Your task to perform on an android device: Open CNN.com Image 0: 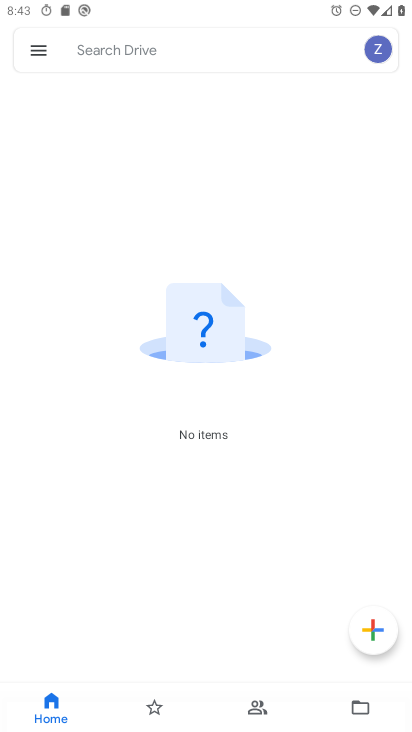
Step 0: press home button
Your task to perform on an android device: Open CNN.com Image 1: 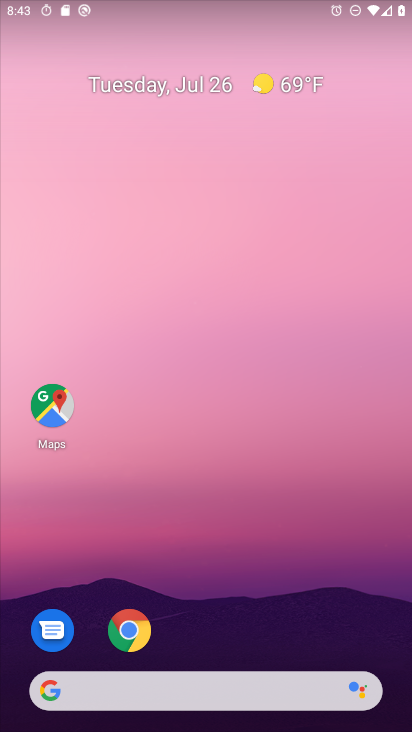
Step 1: drag from (245, 488) to (231, 169)
Your task to perform on an android device: Open CNN.com Image 2: 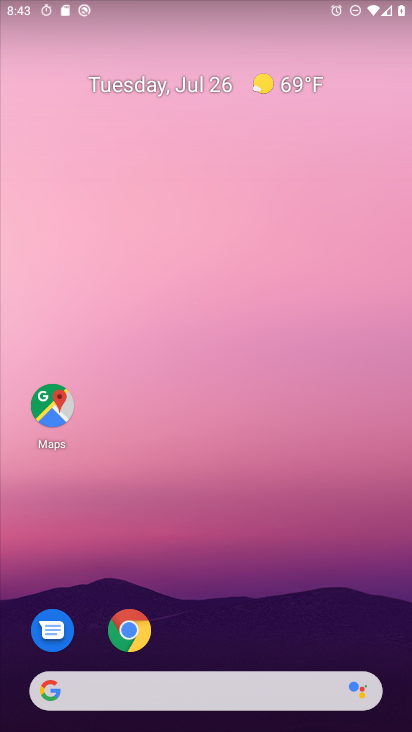
Step 2: drag from (171, 587) to (219, 167)
Your task to perform on an android device: Open CNN.com Image 3: 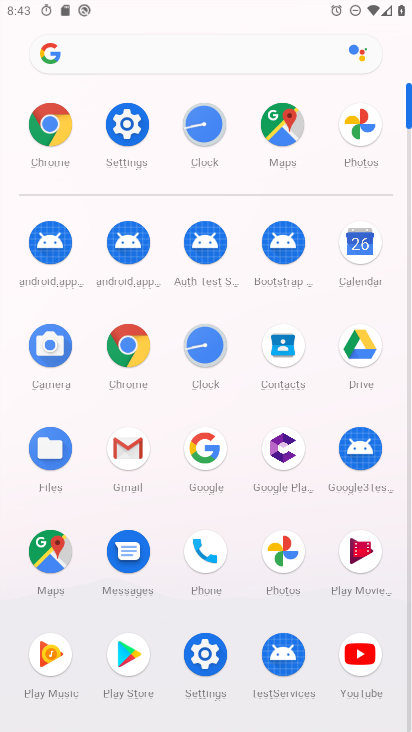
Step 3: click (139, 361)
Your task to perform on an android device: Open CNN.com Image 4: 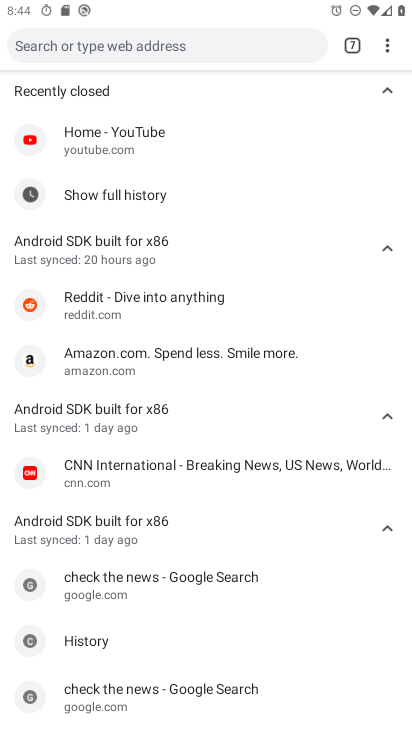
Step 4: click (209, 40)
Your task to perform on an android device: Open CNN.com Image 5: 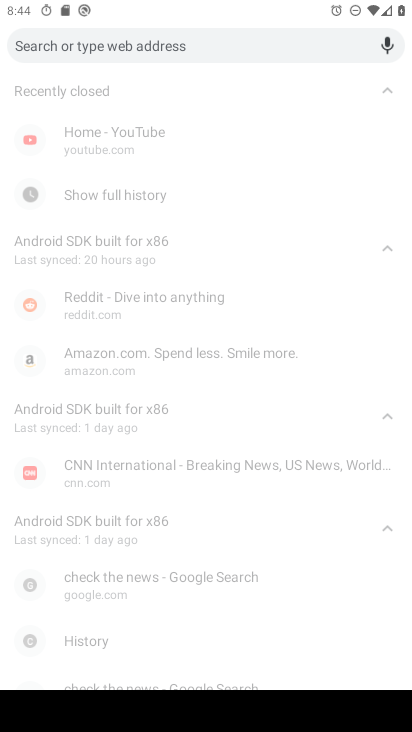
Step 5: type "CNN.com"
Your task to perform on an android device: Open CNN.com Image 6: 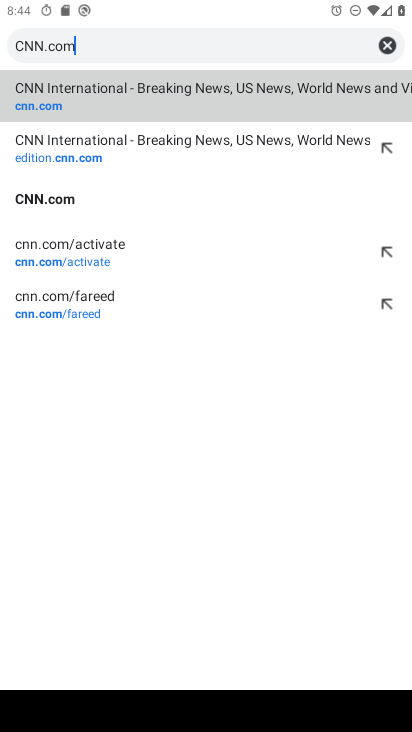
Step 6: type ""
Your task to perform on an android device: Open CNN.com Image 7: 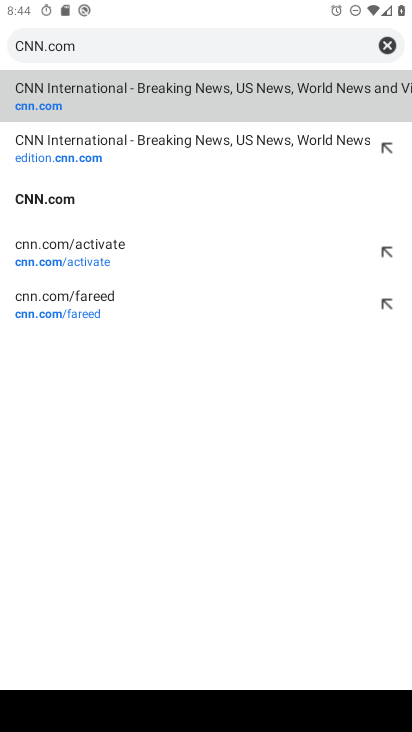
Step 7: click (112, 97)
Your task to perform on an android device: Open CNN.com Image 8: 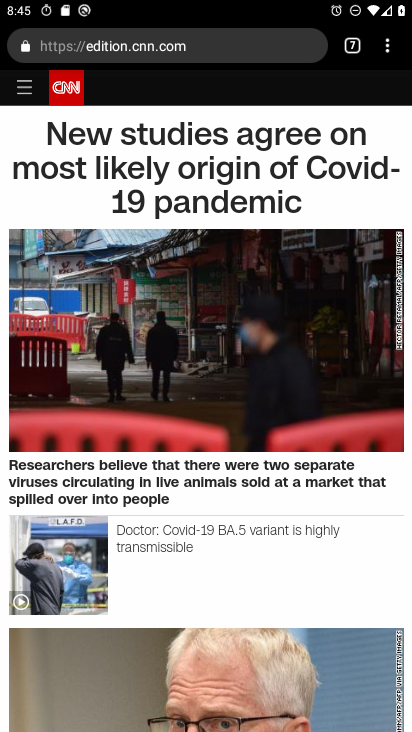
Step 8: task complete